Your task to perform on an android device: Go to Yahoo.com Image 0: 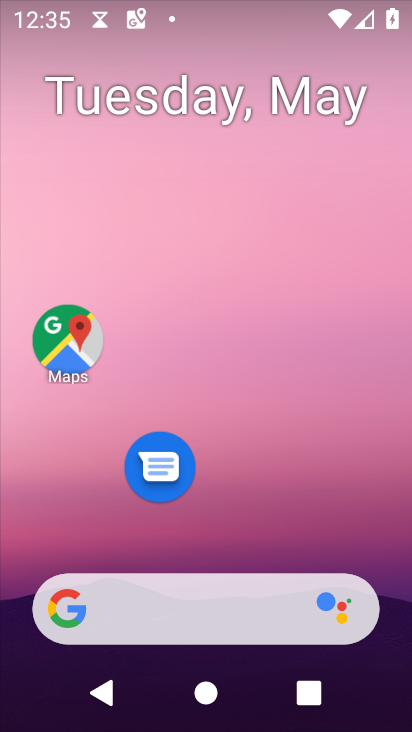
Step 0: drag from (285, 509) to (257, 18)
Your task to perform on an android device: Go to Yahoo.com Image 1: 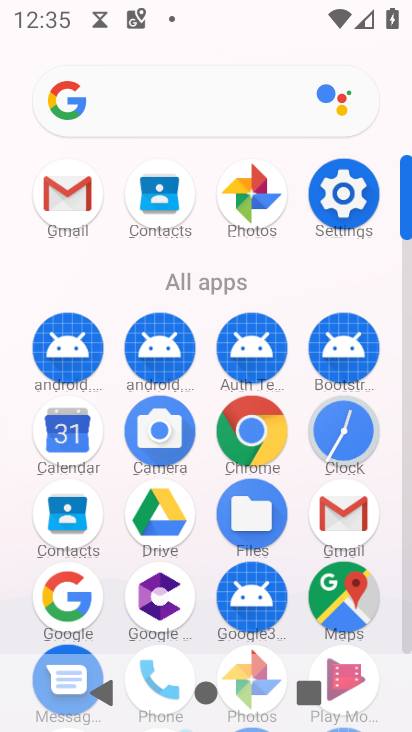
Step 1: click (261, 425)
Your task to perform on an android device: Go to Yahoo.com Image 2: 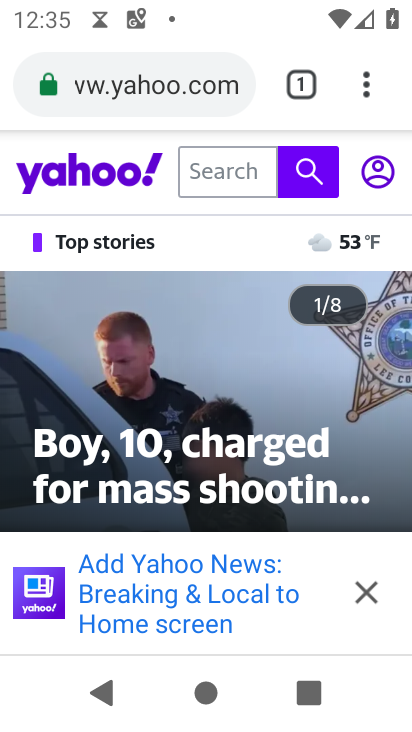
Step 2: task complete